Your task to perform on an android device: Search for seafood restaurants on Google Maps Image 0: 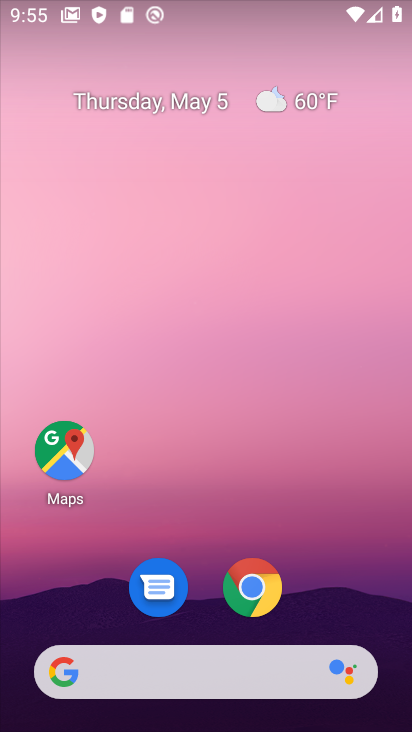
Step 0: click (44, 449)
Your task to perform on an android device: Search for seafood restaurants on Google Maps Image 1: 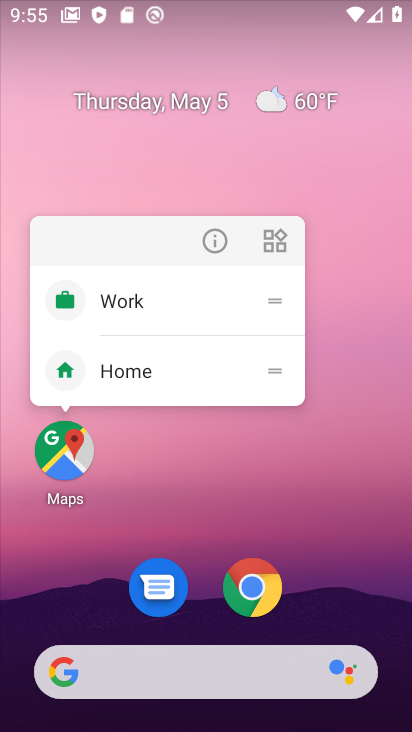
Step 1: click (59, 436)
Your task to perform on an android device: Search for seafood restaurants on Google Maps Image 2: 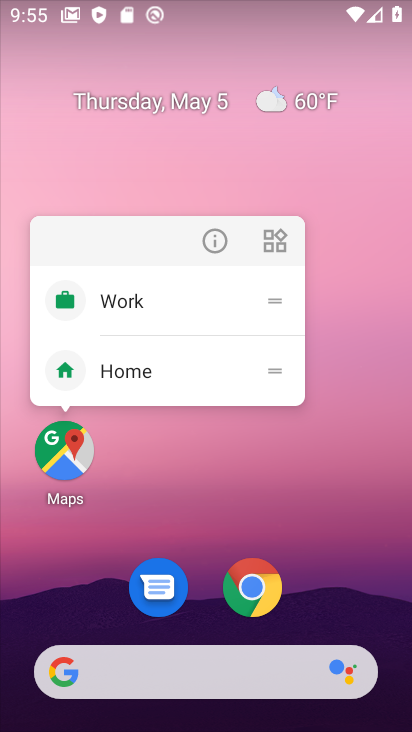
Step 2: click (58, 440)
Your task to perform on an android device: Search for seafood restaurants on Google Maps Image 3: 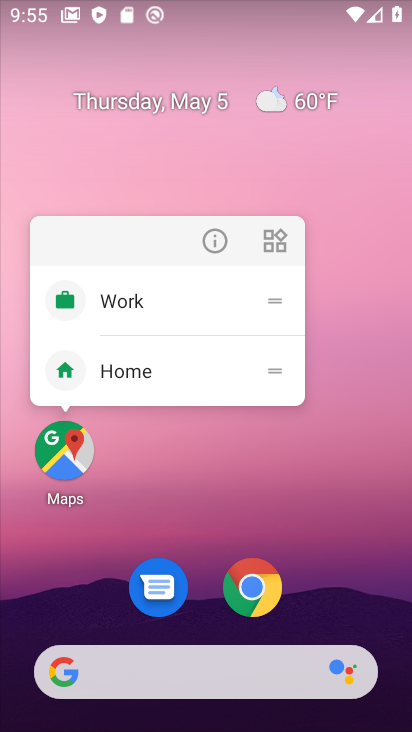
Step 3: click (81, 460)
Your task to perform on an android device: Search for seafood restaurants on Google Maps Image 4: 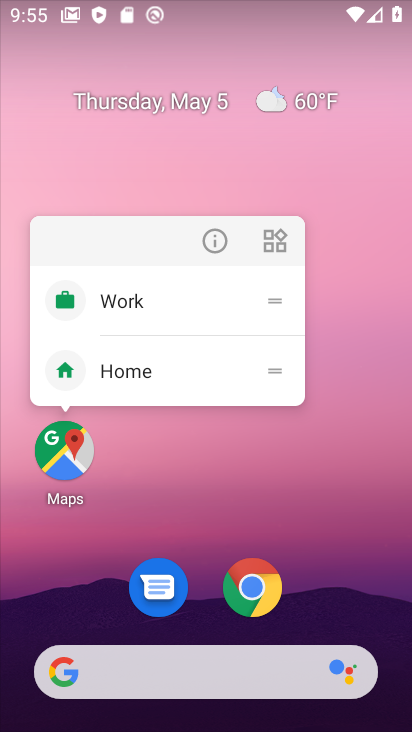
Step 4: click (56, 460)
Your task to perform on an android device: Search for seafood restaurants on Google Maps Image 5: 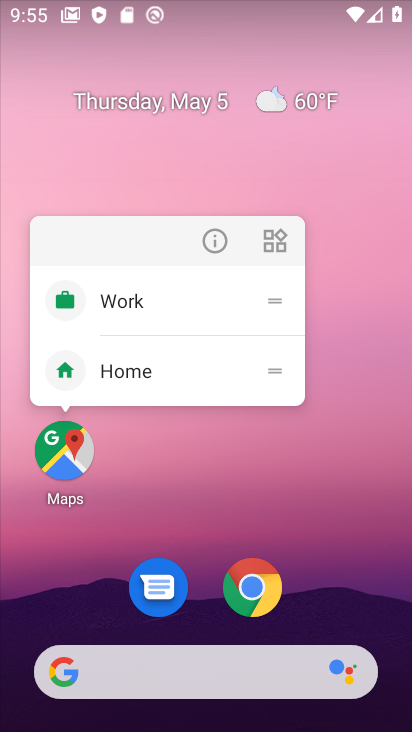
Step 5: click (53, 470)
Your task to perform on an android device: Search for seafood restaurants on Google Maps Image 6: 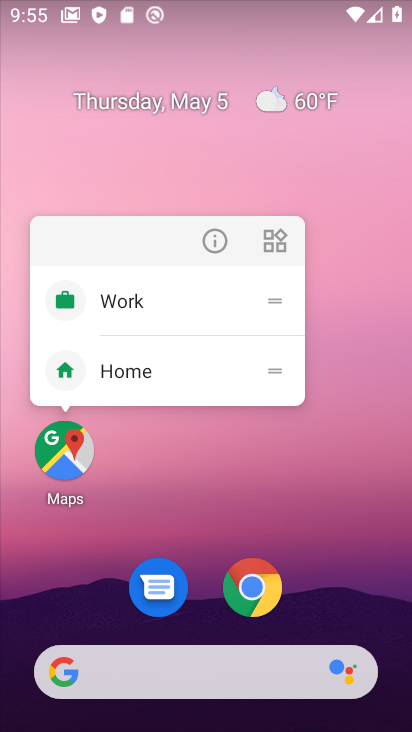
Step 6: click (64, 460)
Your task to perform on an android device: Search for seafood restaurants on Google Maps Image 7: 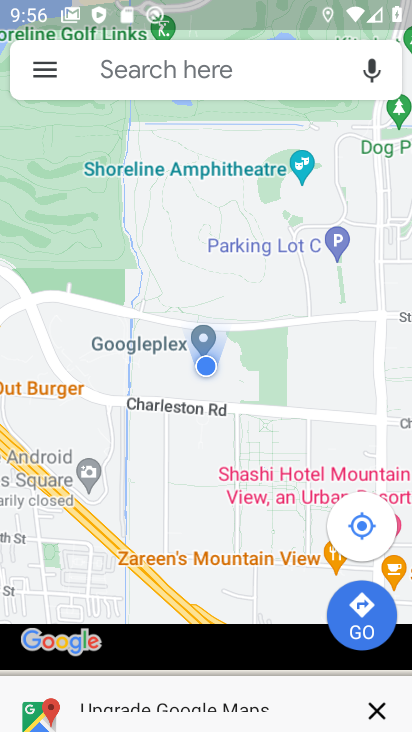
Step 7: click (187, 67)
Your task to perform on an android device: Search for seafood restaurants on Google Maps Image 8: 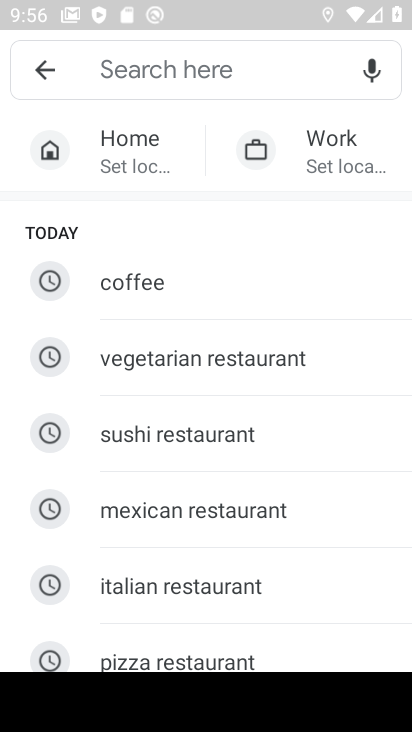
Step 8: type "seafood restaurants "
Your task to perform on an android device: Search for seafood restaurants on Google Maps Image 9: 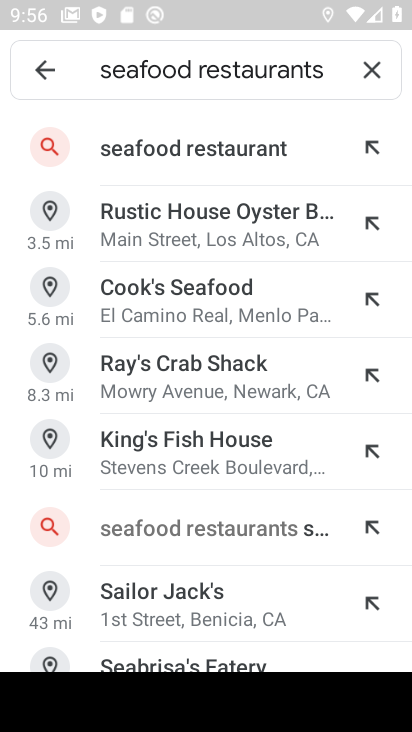
Step 9: click (185, 151)
Your task to perform on an android device: Search for seafood restaurants on Google Maps Image 10: 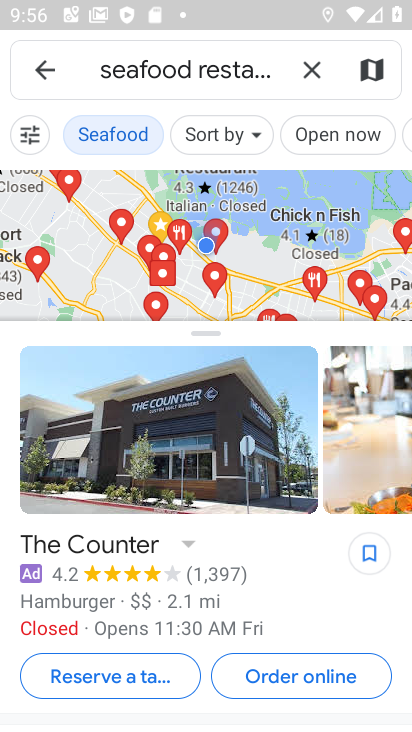
Step 10: task complete